Your task to perform on an android device: delete browsing data in the chrome app Image 0: 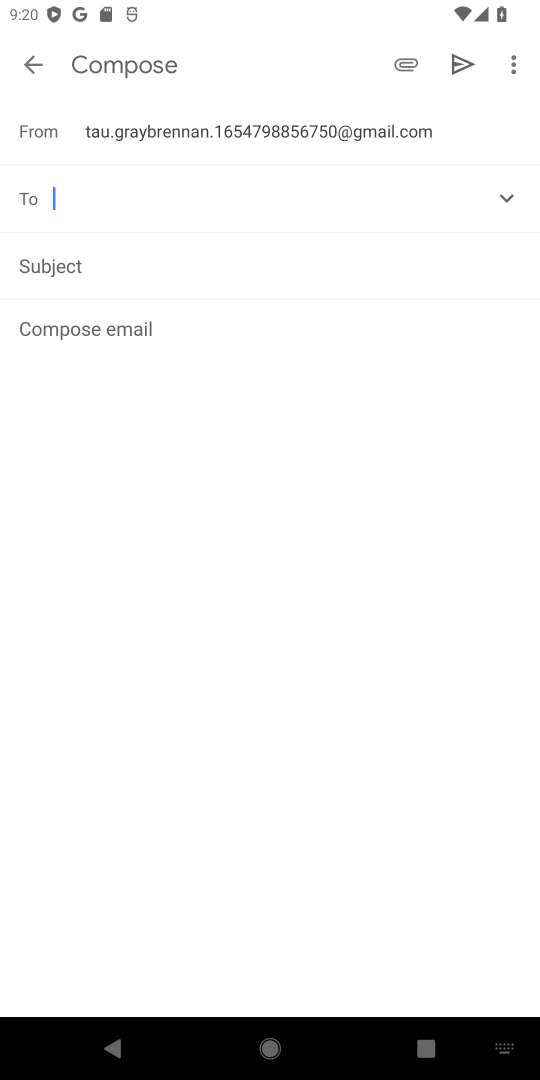
Step 0: press home button
Your task to perform on an android device: delete browsing data in the chrome app Image 1: 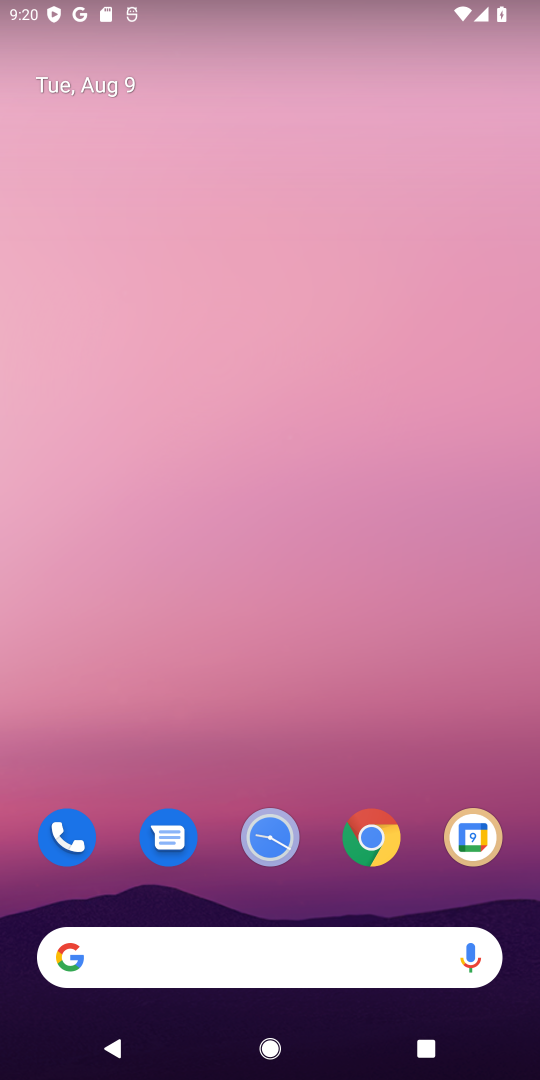
Step 1: click (369, 833)
Your task to perform on an android device: delete browsing data in the chrome app Image 2: 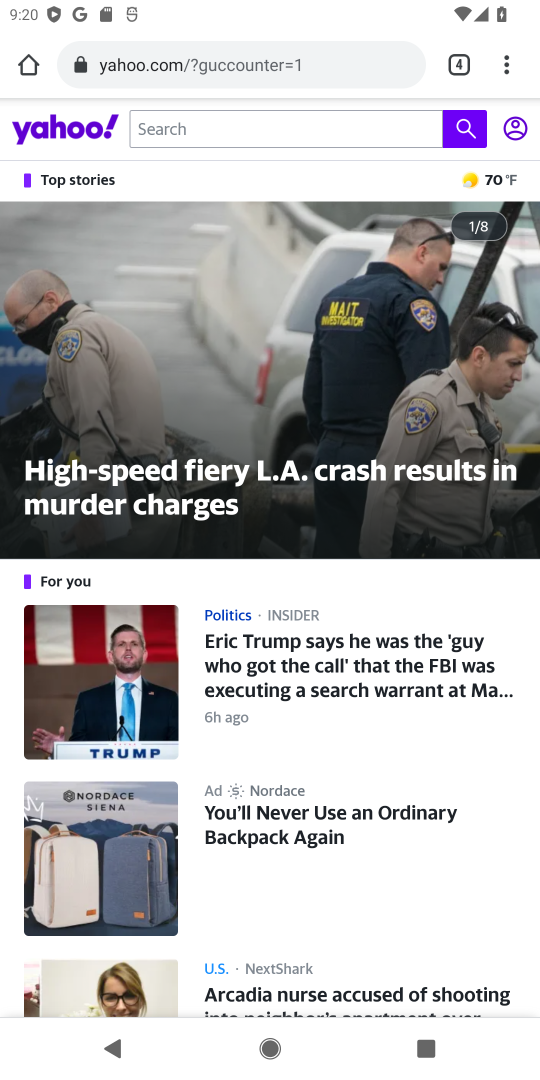
Step 2: click (512, 74)
Your task to perform on an android device: delete browsing data in the chrome app Image 3: 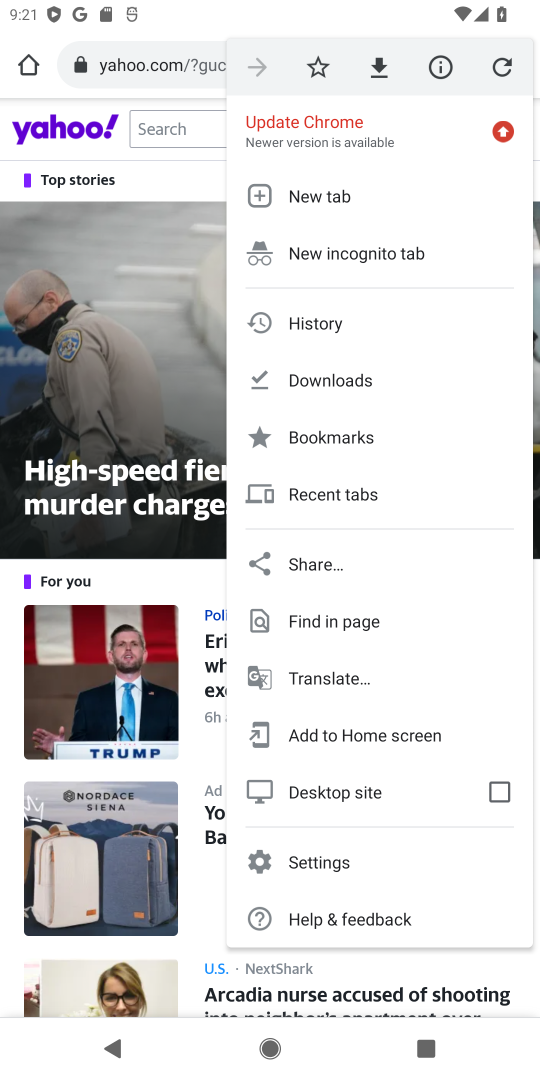
Step 3: click (308, 322)
Your task to perform on an android device: delete browsing data in the chrome app Image 4: 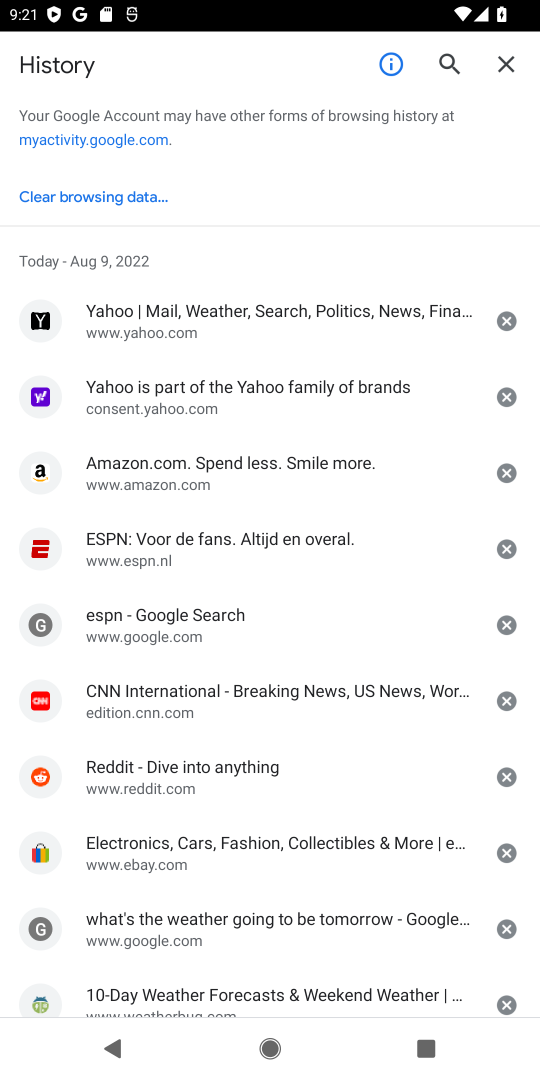
Step 4: click (109, 199)
Your task to perform on an android device: delete browsing data in the chrome app Image 5: 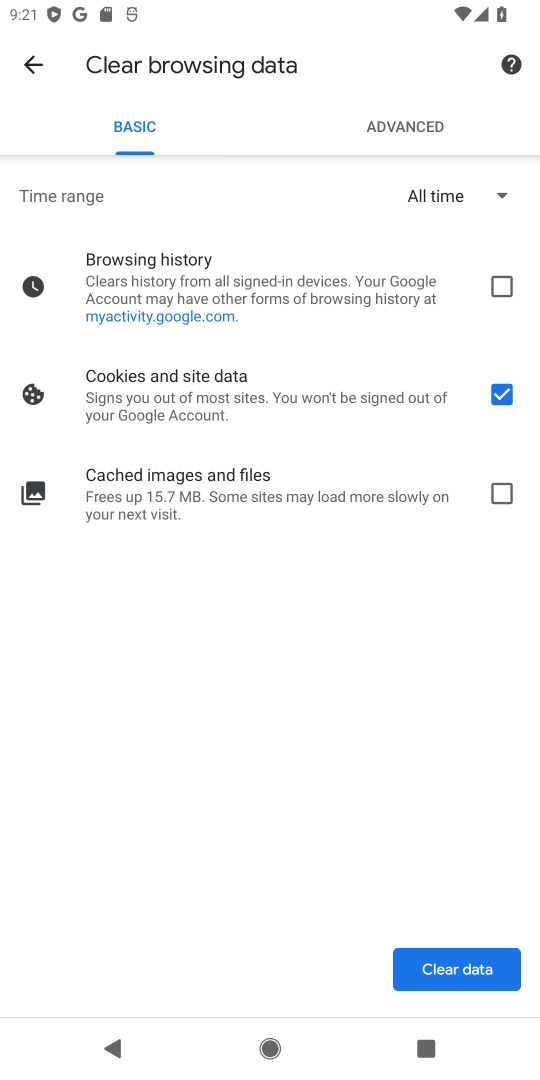
Step 5: click (501, 390)
Your task to perform on an android device: delete browsing data in the chrome app Image 6: 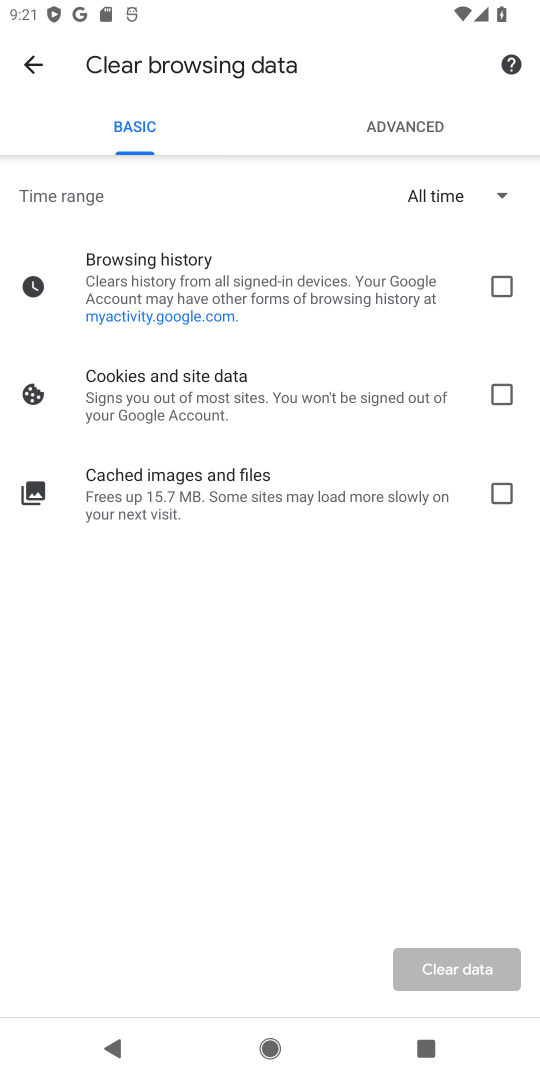
Step 6: click (510, 272)
Your task to perform on an android device: delete browsing data in the chrome app Image 7: 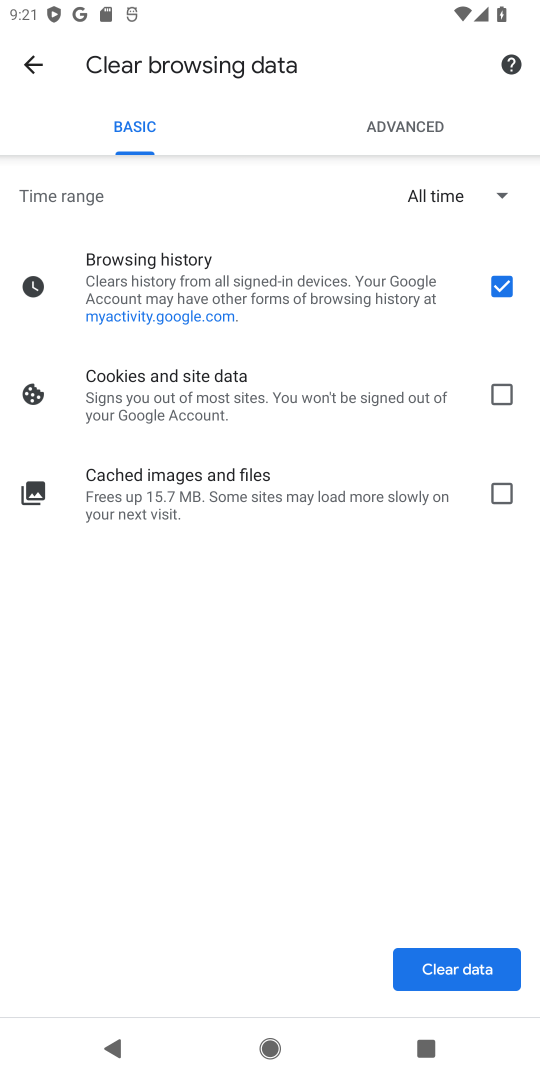
Step 7: click (475, 971)
Your task to perform on an android device: delete browsing data in the chrome app Image 8: 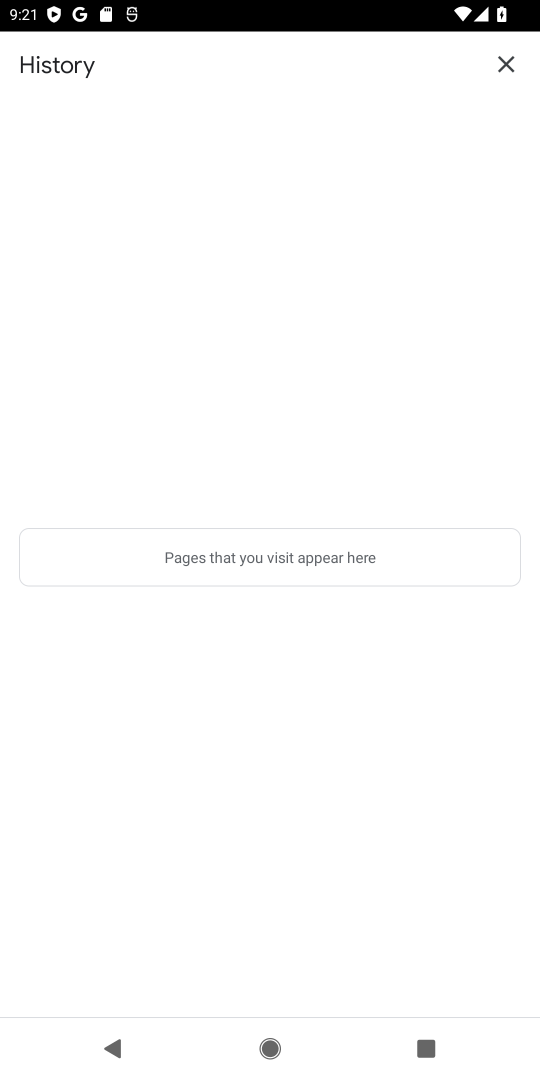
Step 8: task complete